Your task to perform on an android device: Go to ESPN.com Image 0: 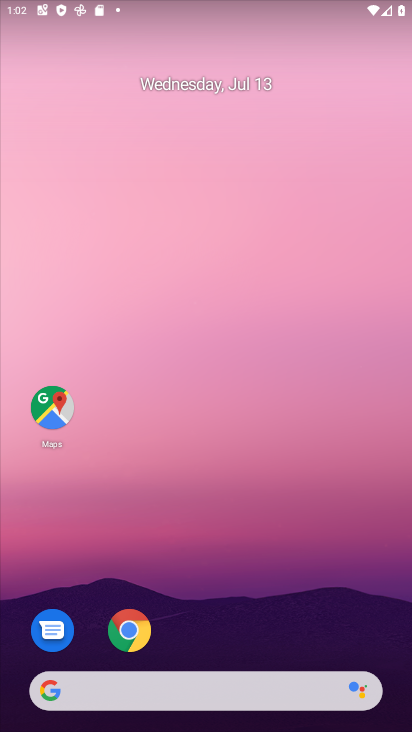
Step 0: drag from (406, 645) to (207, 8)
Your task to perform on an android device: Go to ESPN.com Image 1: 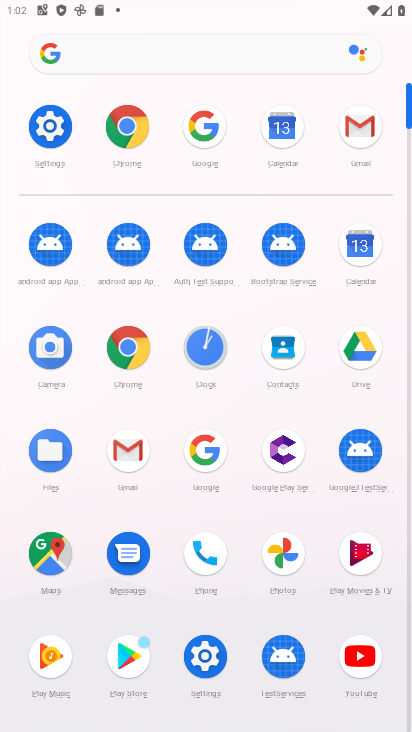
Step 1: click (196, 463)
Your task to perform on an android device: Go to ESPN.com Image 2: 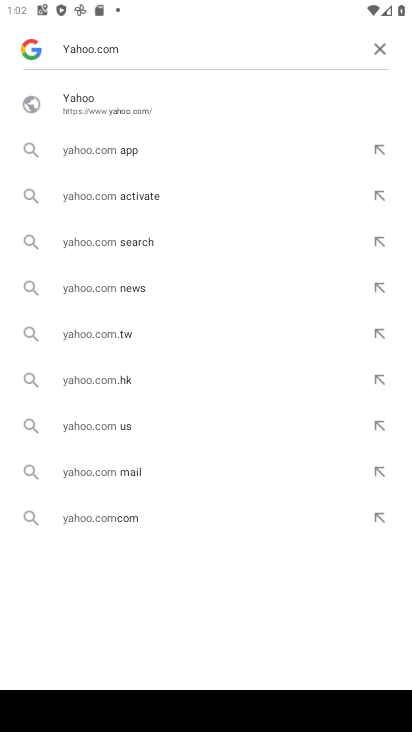
Step 2: click (388, 54)
Your task to perform on an android device: Go to ESPN.com Image 3: 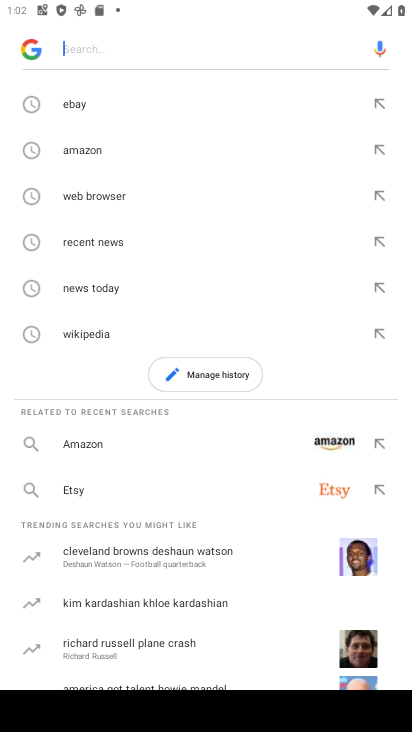
Step 3: type "ESPN.com"
Your task to perform on an android device: Go to ESPN.com Image 4: 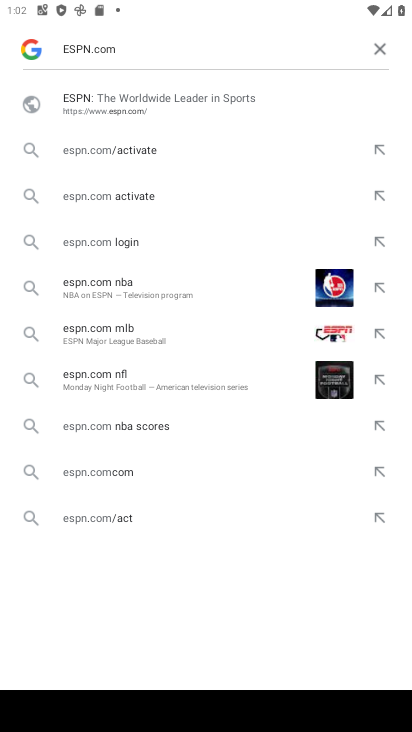
Step 4: click (147, 115)
Your task to perform on an android device: Go to ESPN.com Image 5: 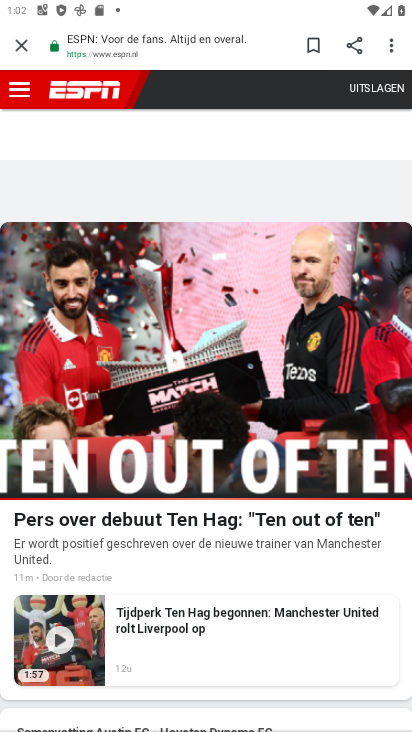
Step 5: task complete